Your task to perform on an android device: toggle translation in the chrome app Image 0: 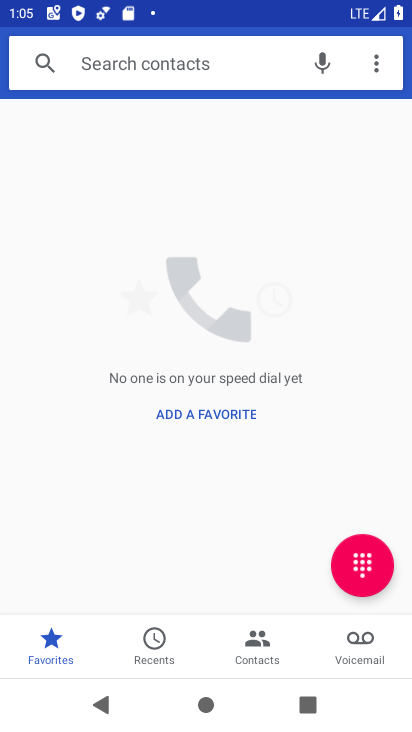
Step 0: press home button
Your task to perform on an android device: toggle translation in the chrome app Image 1: 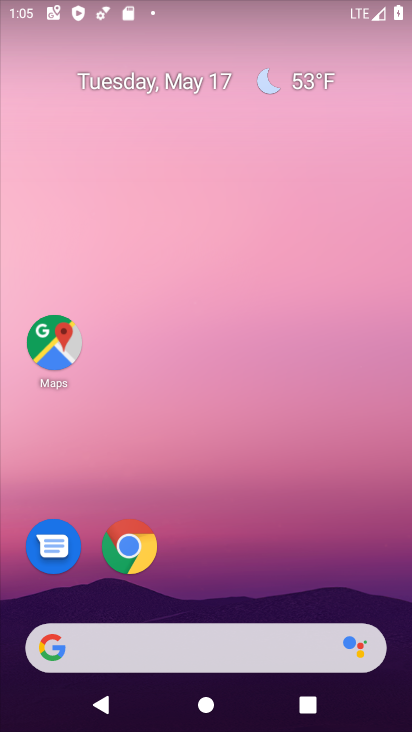
Step 1: click (135, 565)
Your task to perform on an android device: toggle translation in the chrome app Image 2: 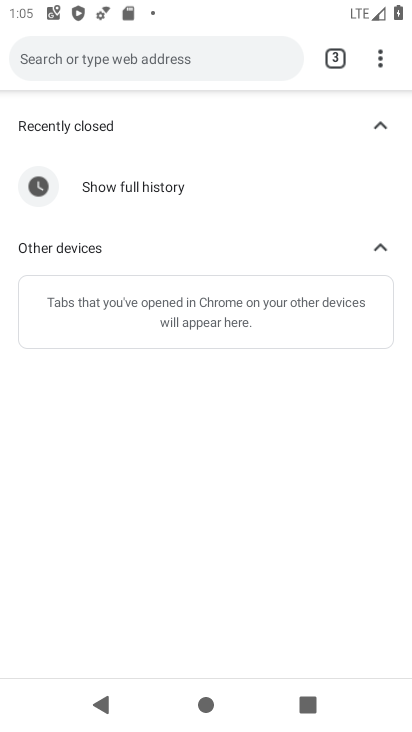
Step 2: drag from (387, 53) to (176, 483)
Your task to perform on an android device: toggle translation in the chrome app Image 3: 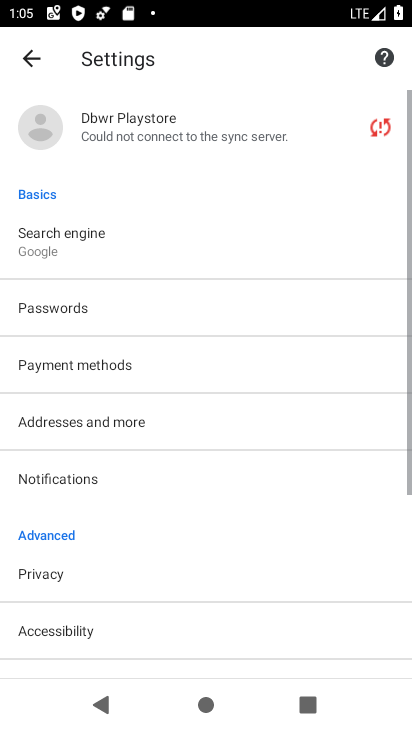
Step 3: drag from (180, 515) to (180, 278)
Your task to perform on an android device: toggle translation in the chrome app Image 4: 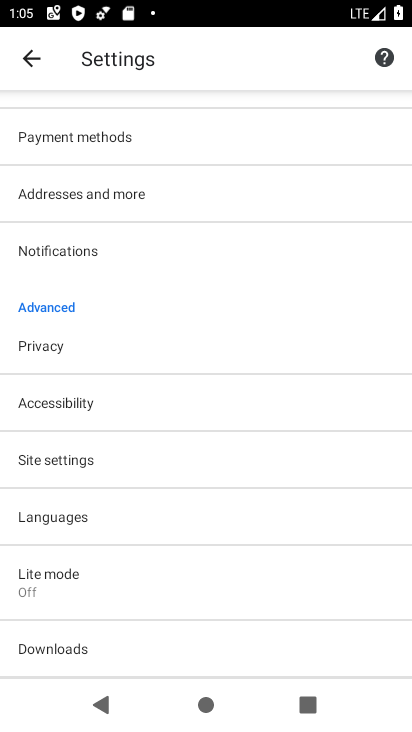
Step 4: click (100, 528)
Your task to perform on an android device: toggle translation in the chrome app Image 5: 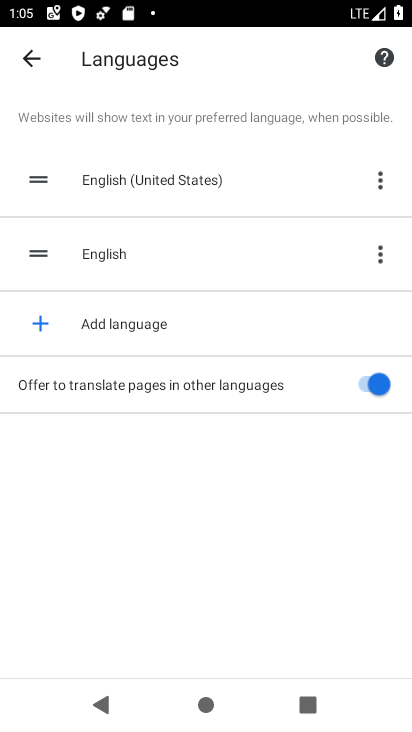
Step 5: click (375, 384)
Your task to perform on an android device: toggle translation in the chrome app Image 6: 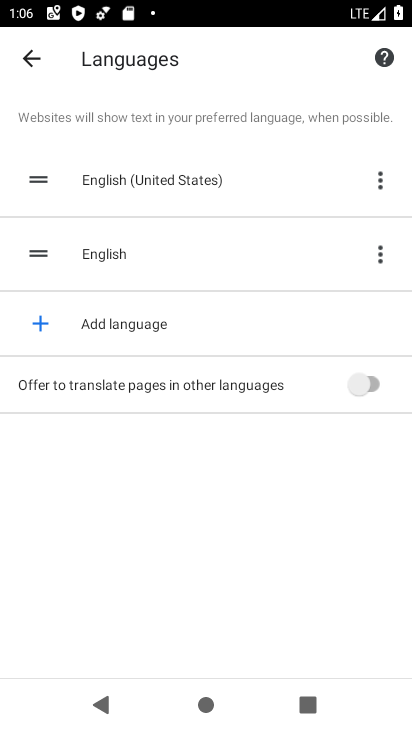
Step 6: task complete